Your task to perform on an android device: turn on priority inbox in the gmail app Image 0: 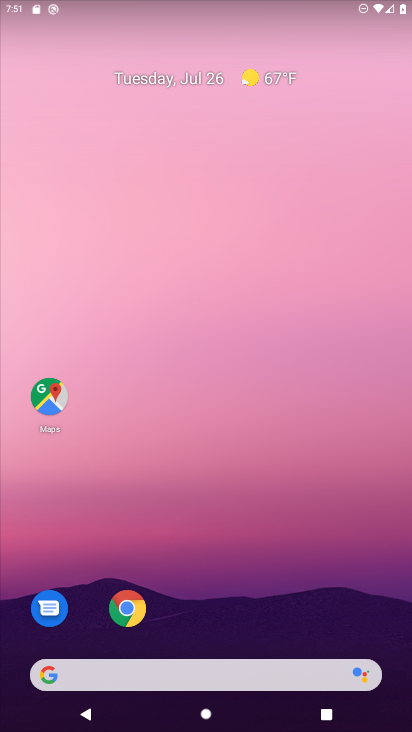
Step 0: drag from (223, 593) to (194, 16)
Your task to perform on an android device: turn on priority inbox in the gmail app Image 1: 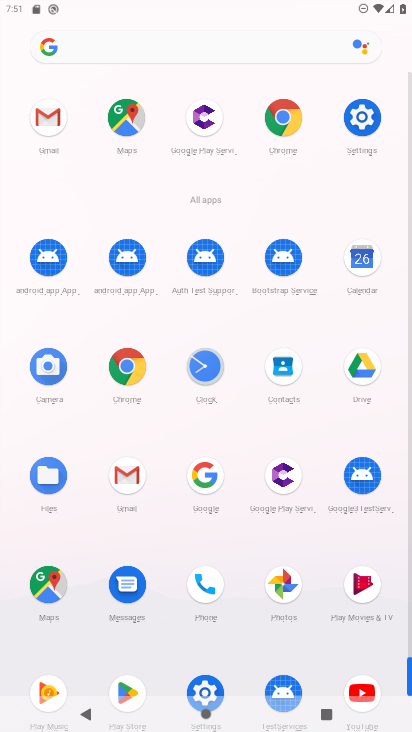
Step 1: click (130, 482)
Your task to perform on an android device: turn on priority inbox in the gmail app Image 2: 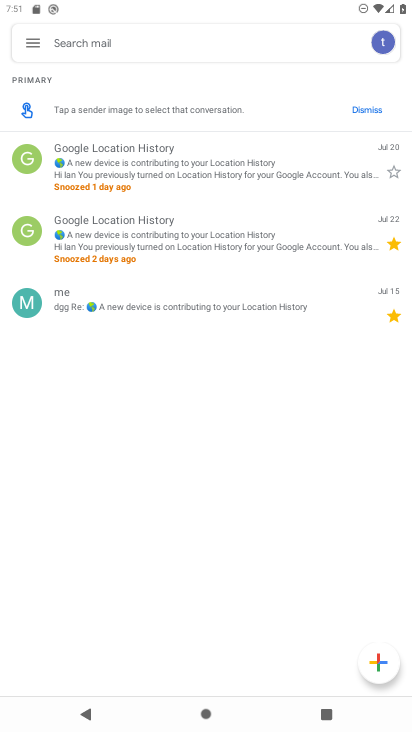
Step 2: click (34, 43)
Your task to perform on an android device: turn on priority inbox in the gmail app Image 3: 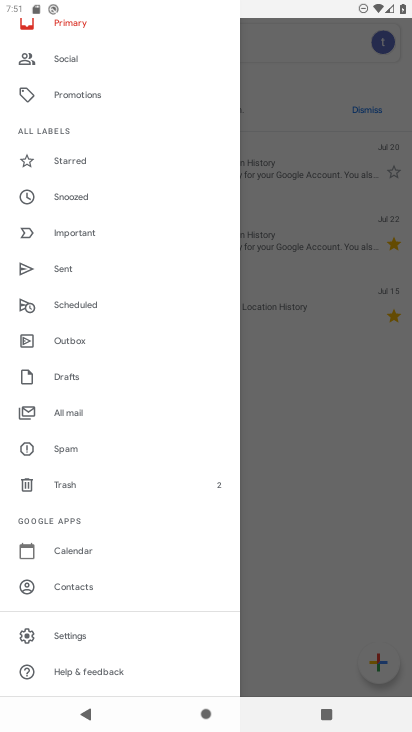
Step 3: drag from (69, 631) to (109, 355)
Your task to perform on an android device: turn on priority inbox in the gmail app Image 4: 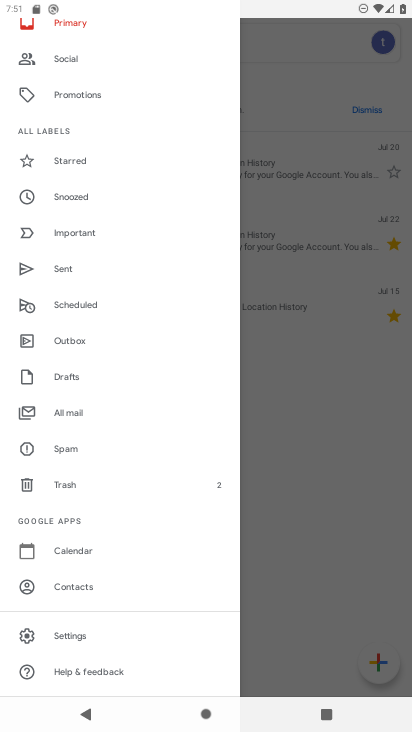
Step 4: click (65, 637)
Your task to perform on an android device: turn on priority inbox in the gmail app Image 5: 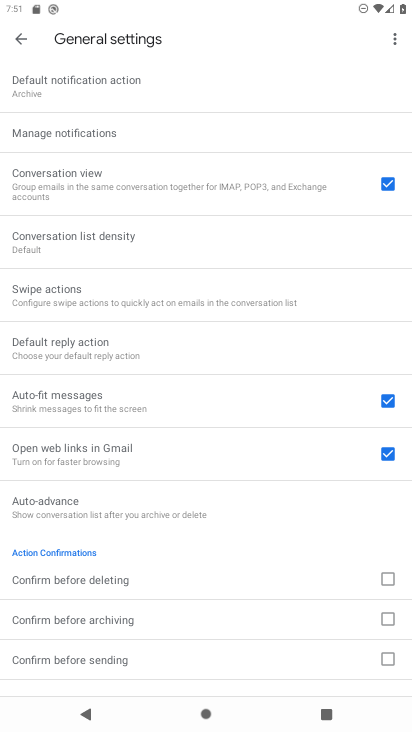
Step 5: click (17, 40)
Your task to perform on an android device: turn on priority inbox in the gmail app Image 6: 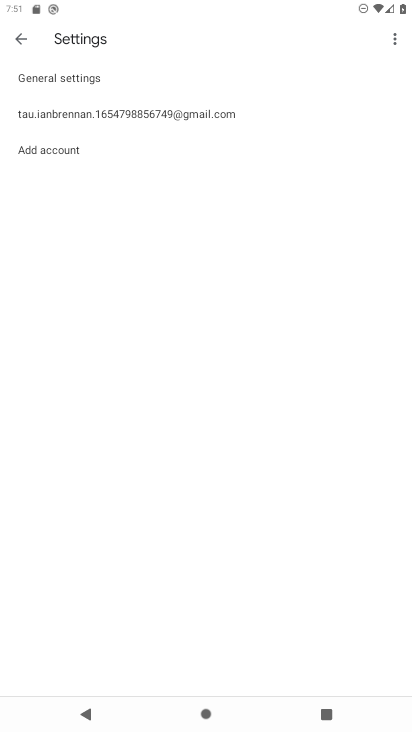
Step 6: click (155, 114)
Your task to perform on an android device: turn on priority inbox in the gmail app Image 7: 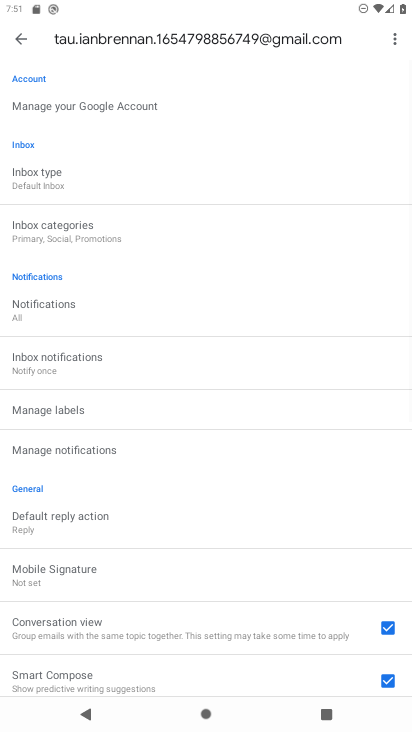
Step 7: click (41, 183)
Your task to perform on an android device: turn on priority inbox in the gmail app Image 8: 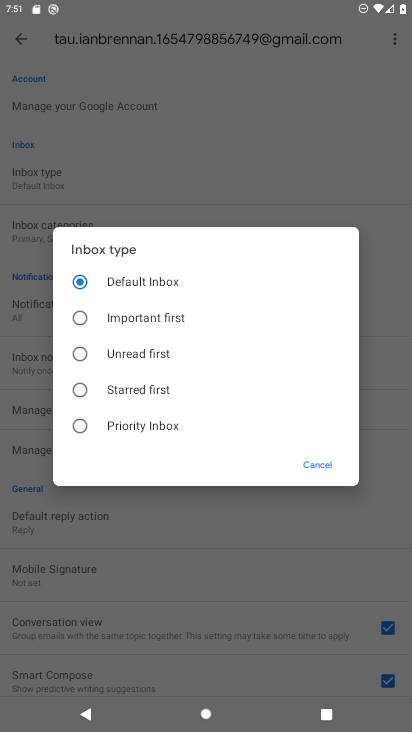
Step 8: click (88, 421)
Your task to perform on an android device: turn on priority inbox in the gmail app Image 9: 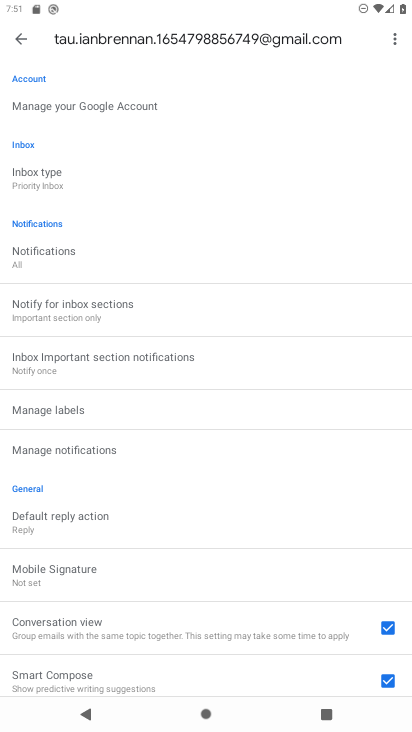
Step 9: task complete